Your task to perform on an android device: Open eBay Image 0: 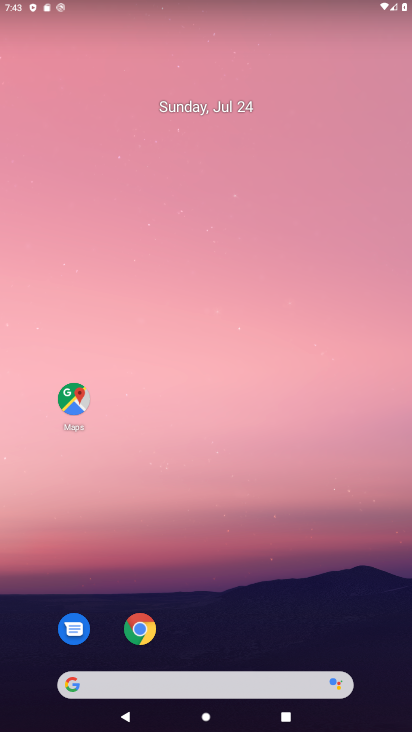
Step 0: drag from (193, 660) to (220, 189)
Your task to perform on an android device: Open eBay Image 1: 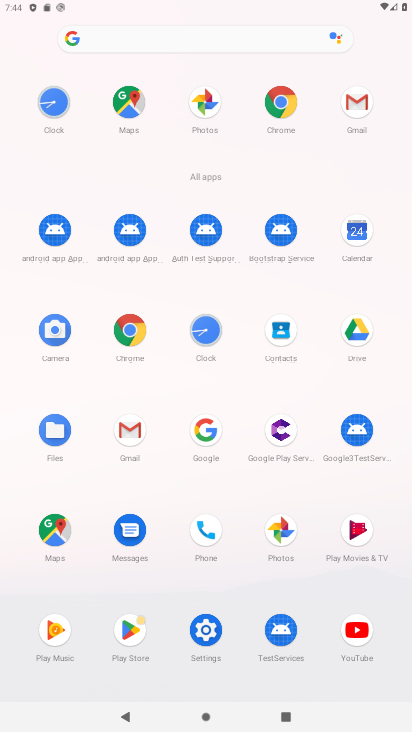
Step 1: click (292, 126)
Your task to perform on an android device: Open eBay Image 2: 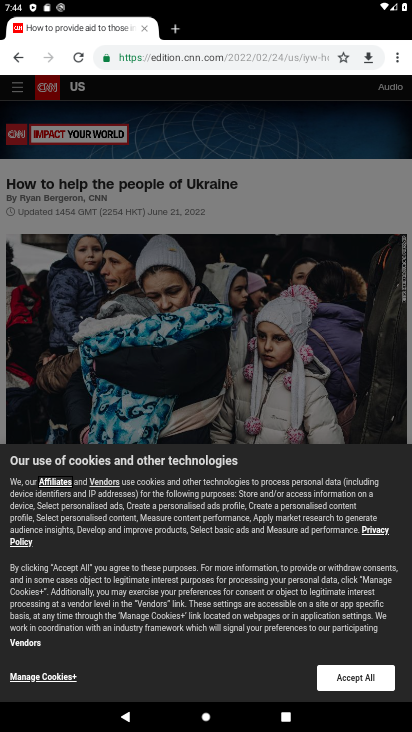
Step 2: click (262, 63)
Your task to perform on an android device: Open eBay Image 3: 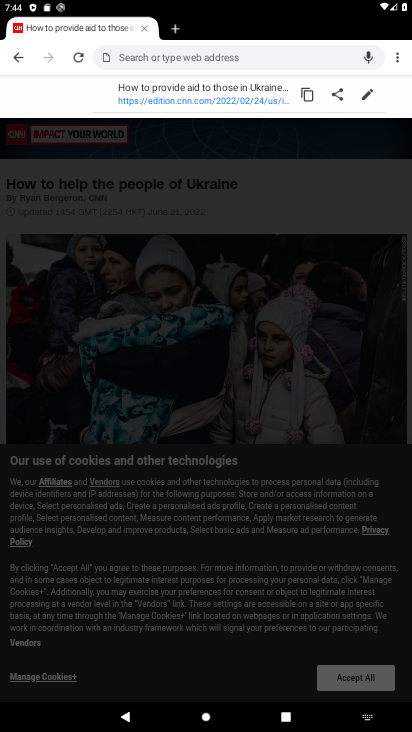
Step 3: type "ebay"
Your task to perform on an android device: Open eBay Image 4: 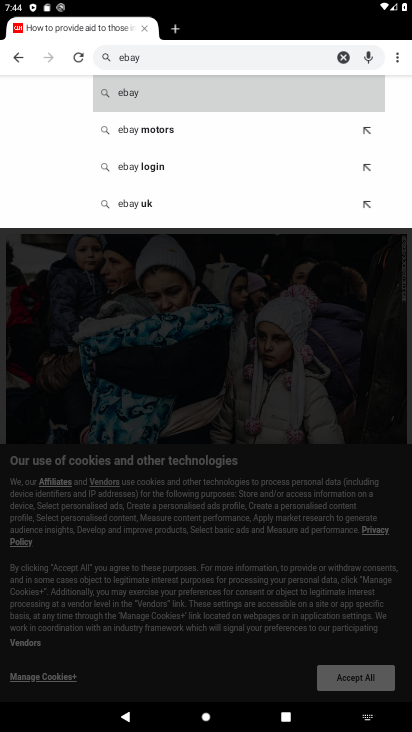
Step 4: click (219, 97)
Your task to perform on an android device: Open eBay Image 5: 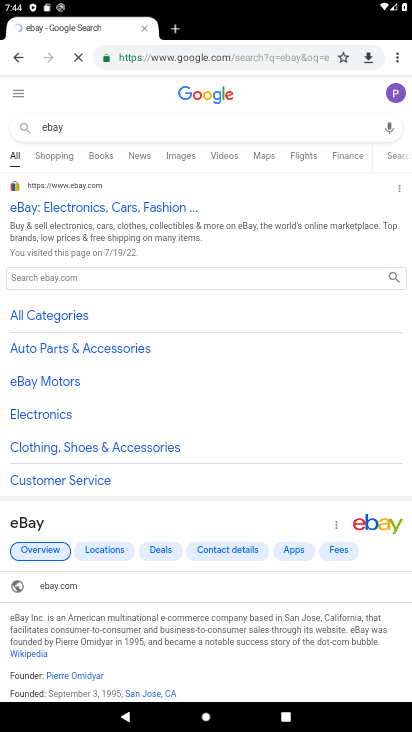
Step 5: click (68, 209)
Your task to perform on an android device: Open eBay Image 6: 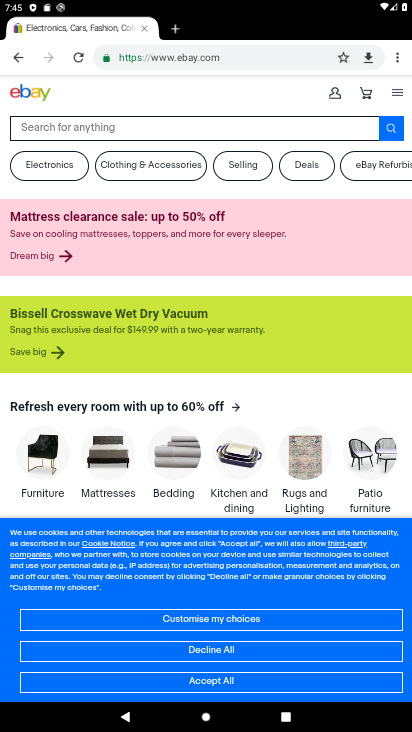
Step 6: task complete